Your task to perform on an android device: install app "Google Duo" Image 0: 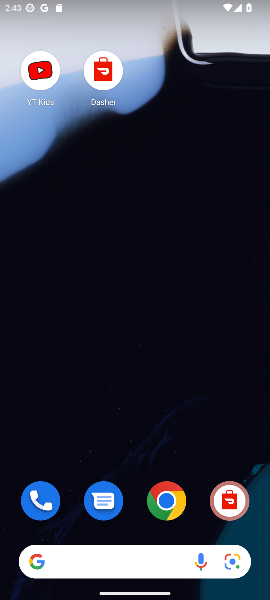
Step 0: drag from (132, 436) to (154, 6)
Your task to perform on an android device: install app "Google Duo" Image 1: 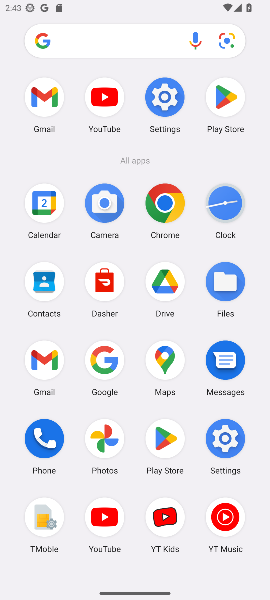
Step 1: click (226, 97)
Your task to perform on an android device: install app "Google Duo" Image 2: 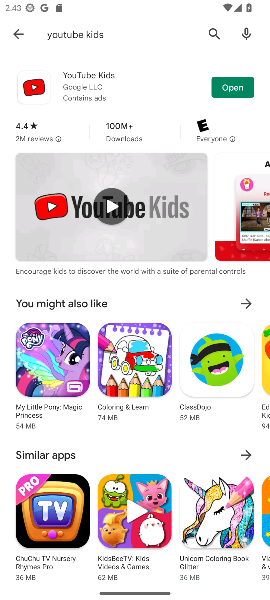
Step 2: click (215, 33)
Your task to perform on an android device: install app "Google Duo" Image 3: 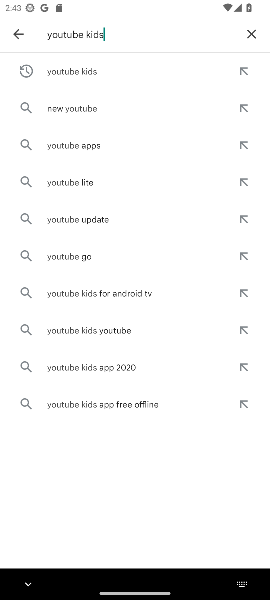
Step 3: click (252, 34)
Your task to perform on an android device: install app "Google Duo" Image 4: 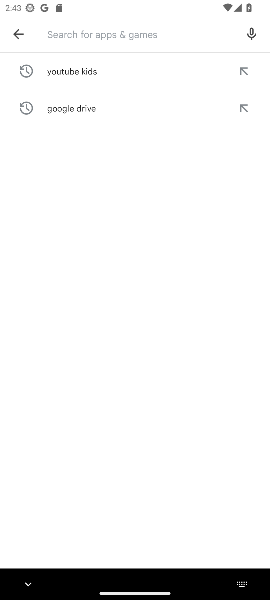
Step 4: type "Google Duo"
Your task to perform on an android device: install app "Google Duo" Image 5: 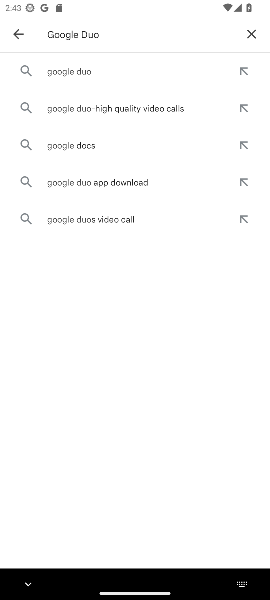
Step 5: click (62, 74)
Your task to perform on an android device: install app "Google Duo" Image 6: 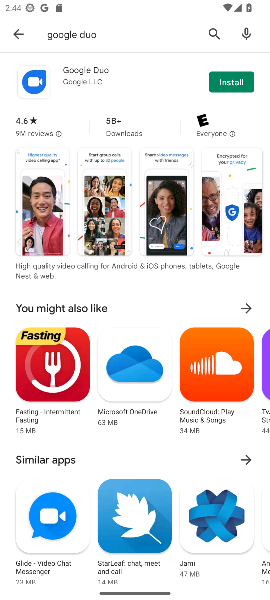
Step 6: click (233, 89)
Your task to perform on an android device: install app "Google Duo" Image 7: 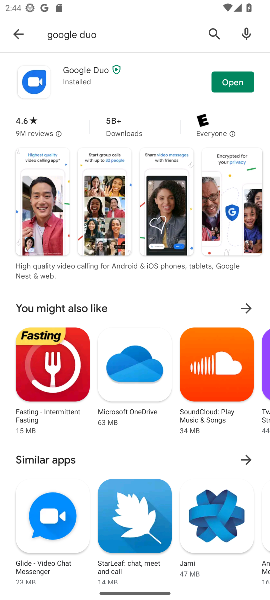
Step 7: task complete